Your task to perform on an android device: Go to wifi settings Image 0: 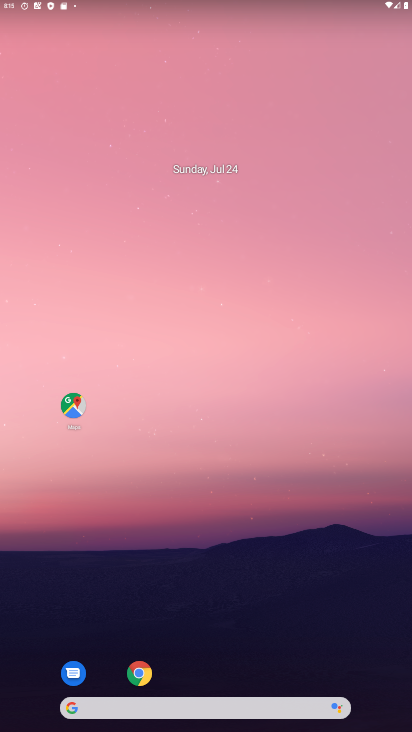
Step 0: drag from (163, 657) to (186, 1)
Your task to perform on an android device: Go to wifi settings Image 1: 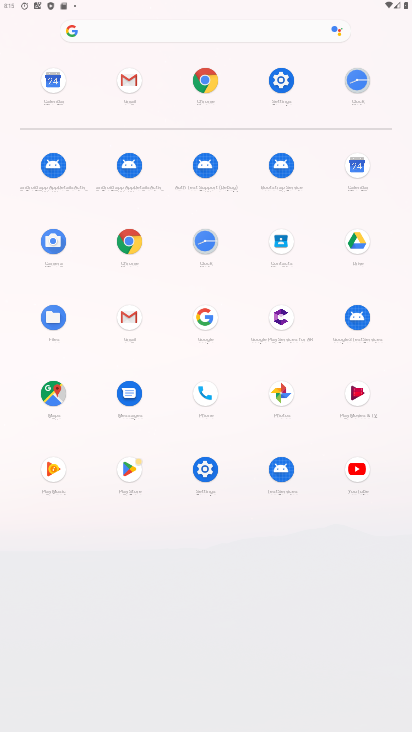
Step 1: drag from (199, 529) to (232, 381)
Your task to perform on an android device: Go to wifi settings Image 2: 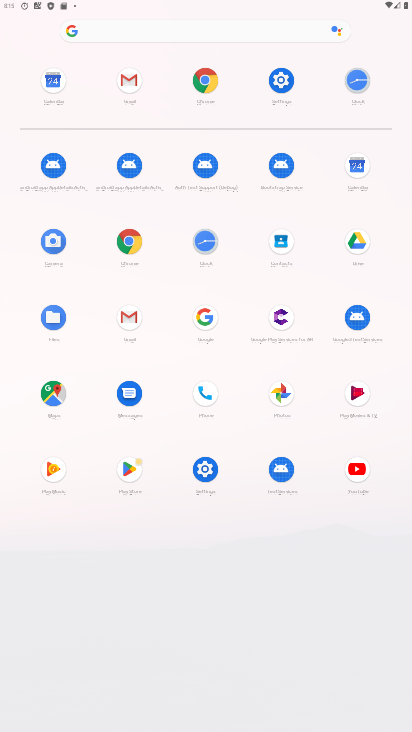
Step 2: click (196, 475)
Your task to perform on an android device: Go to wifi settings Image 3: 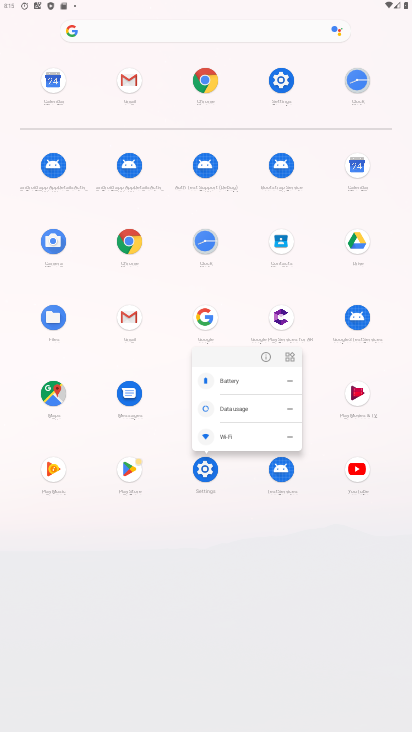
Step 3: click (268, 350)
Your task to perform on an android device: Go to wifi settings Image 4: 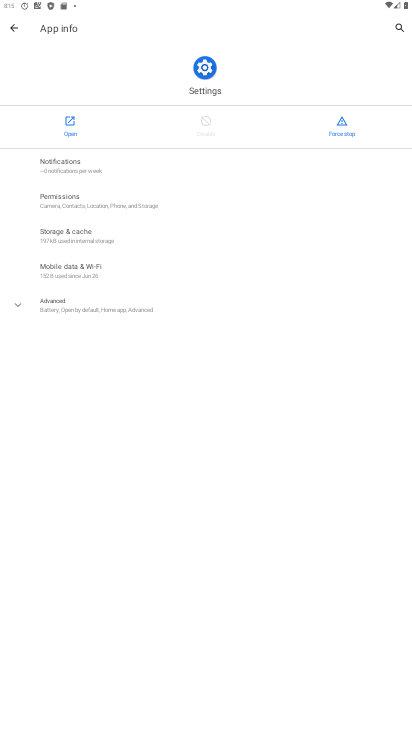
Step 4: click (80, 139)
Your task to perform on an android device: Go to wifi settings Image 5: 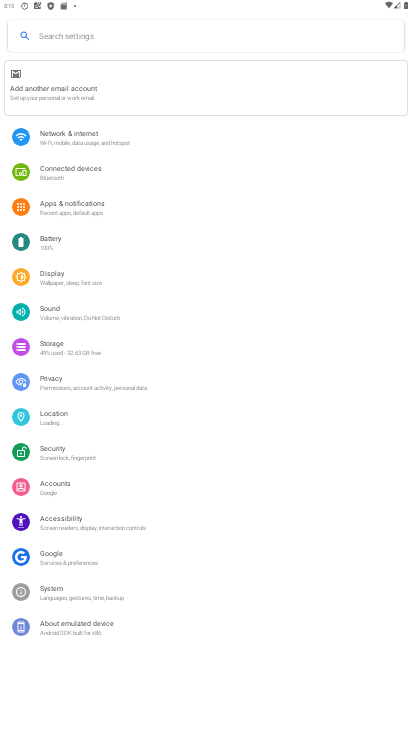
Step 5: click (117, 128)
Your task to perform on an android device: Go to wifi settings Image 6: 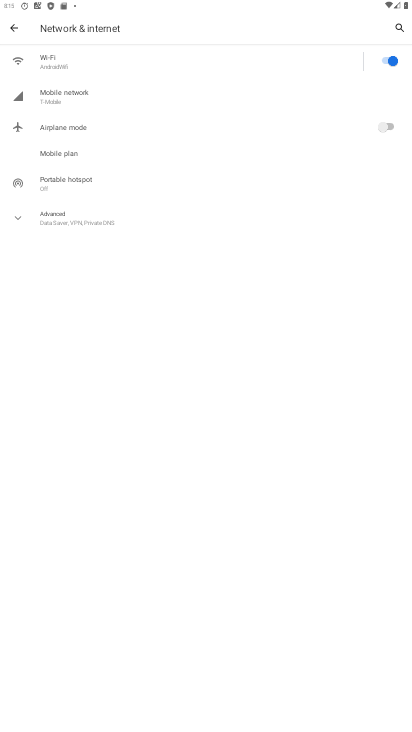
Step 6: click (98, 68)
Your task to perform on an android device: Go to wifi settings Image 7: 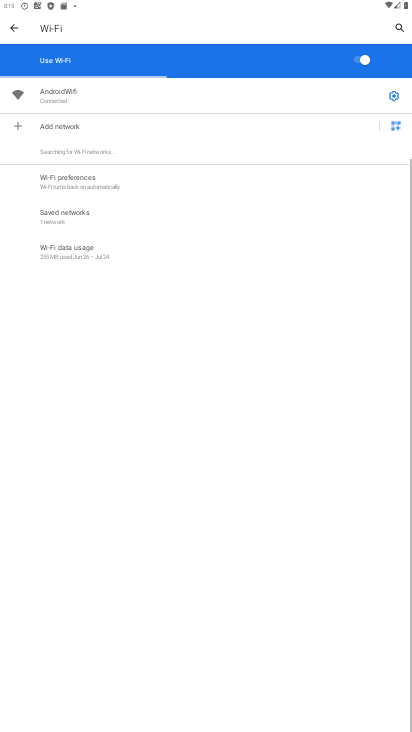
Step 7: click (390, 96)
Your task to perform on an android device: Go to wifi settings Image 8: 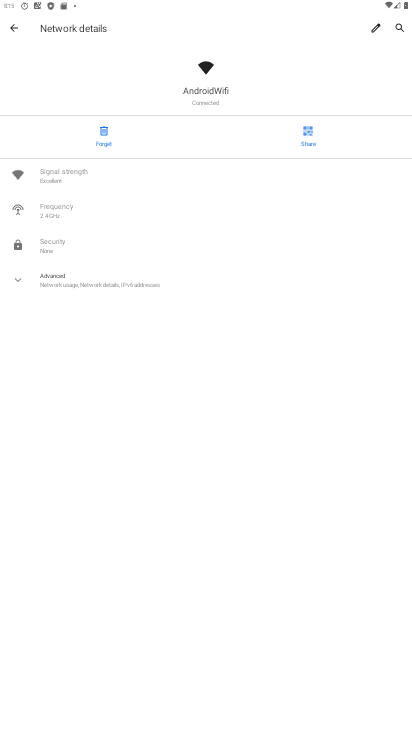
Step 8: click (214, 217)
Your task to perform on an android device: Go to wifi settings Image 9: 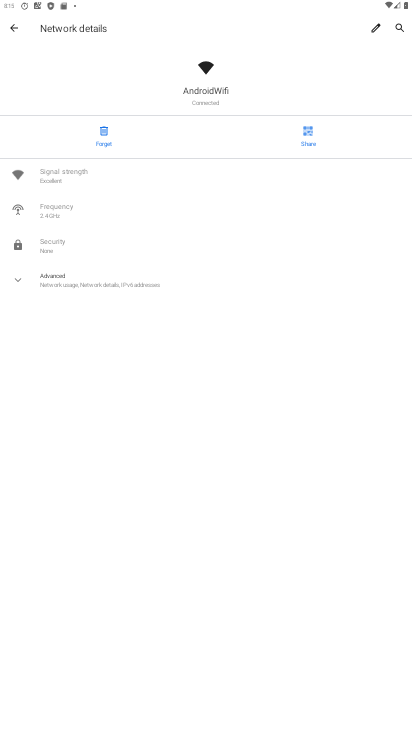
Step 9: task complete